Your task to perform on an android device: Is it going to rain today? Image 0: 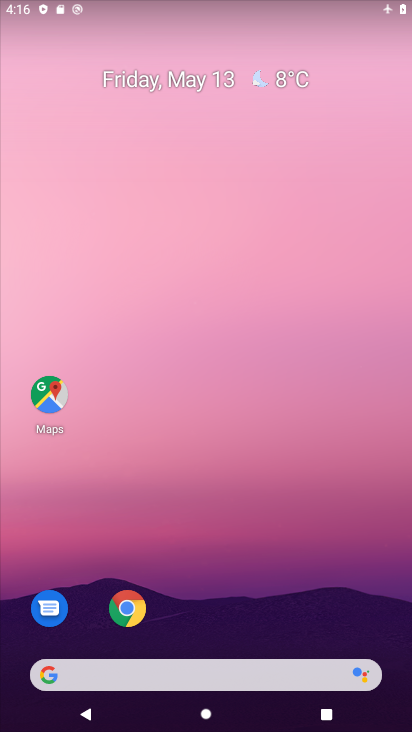
Step 0: drag from (223, 603) to (226, 128)
Your task to perform on an android device: Is it going to rain today? Image 1: 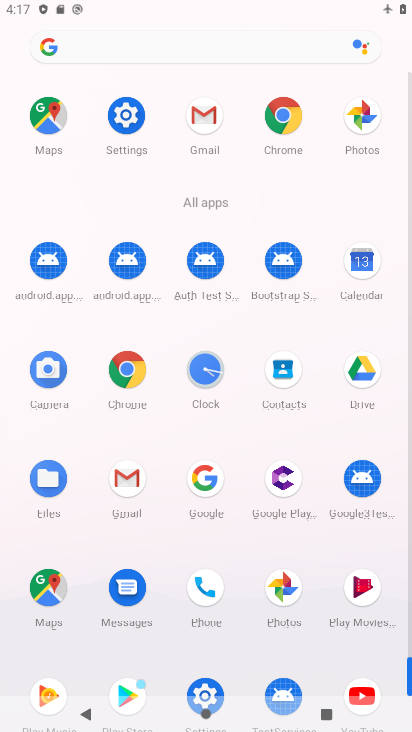
Step 1: click (200, 478)
Your task to perform on an android device: Is it going to rain today? Image 2: 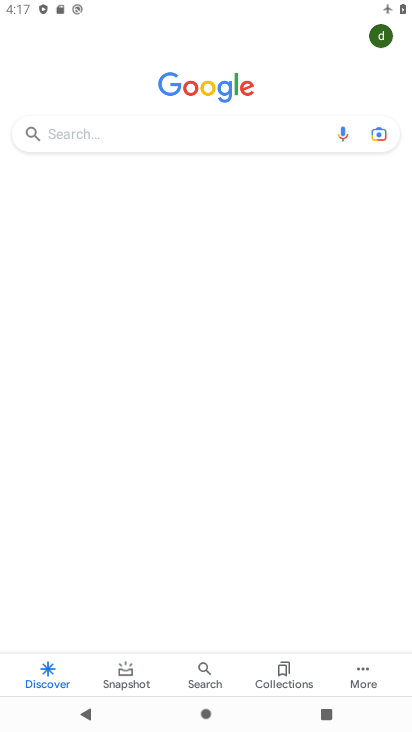
Step 2: click (165, 127)
Your task to perform on an android device: Is it going to rain today? Image 3: 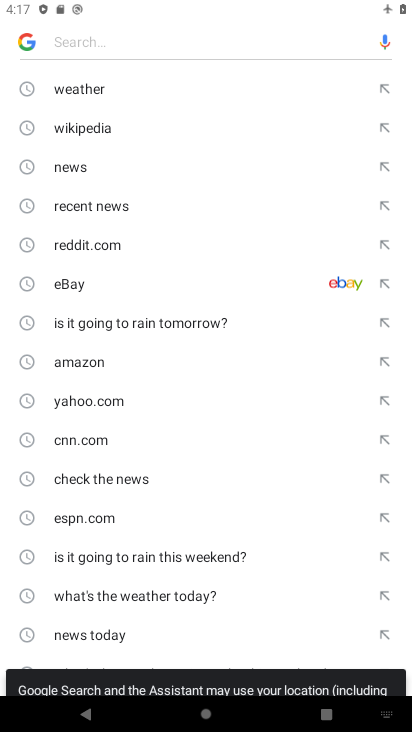
Step 3: click (89, 92)
Your task to perform on an android device: Is it going to rain today? Image 4: 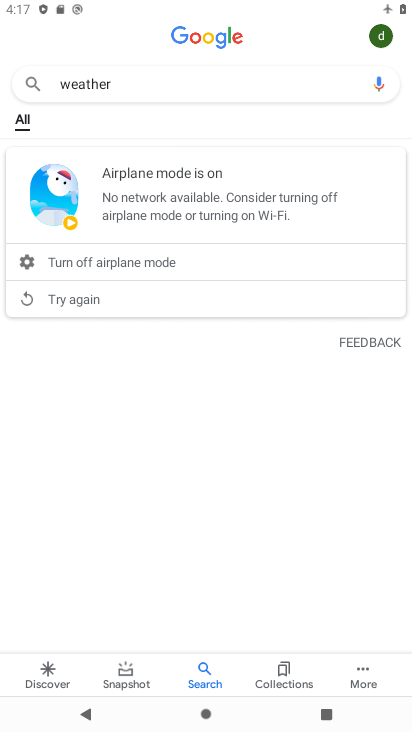
Step 4: task complete